Your task to perform on an android device: delete browsing data in the chrome app Image 0: 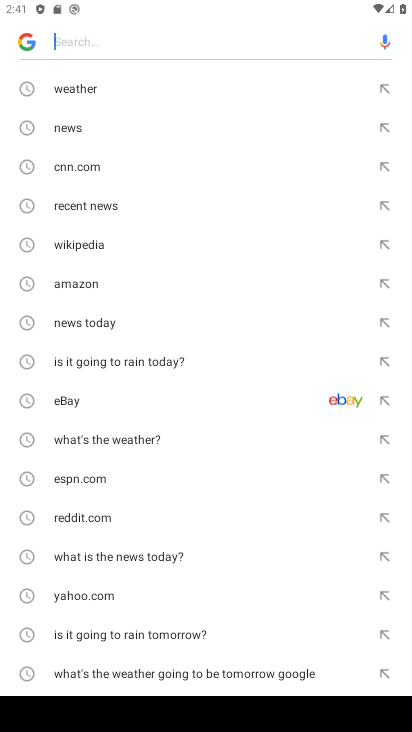
Step 0: press home button
Your task to perform on an android device: delete browsing data in the chrome app Image 1: 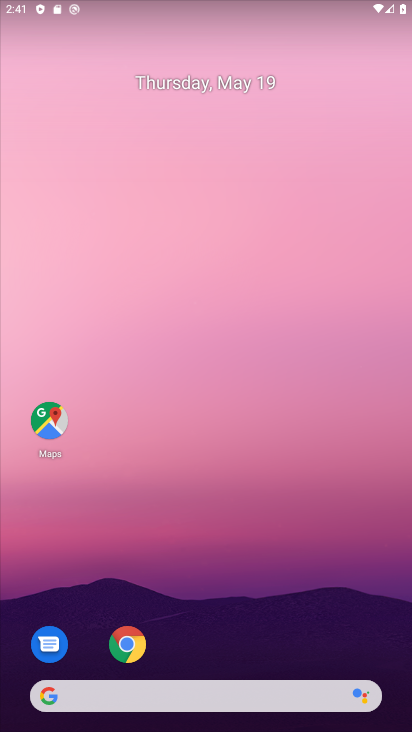
Step 1: drag from (277, 558) to (271, 261)
Your task to perform on an android device: delete browsing data in the chrome app Image 2: 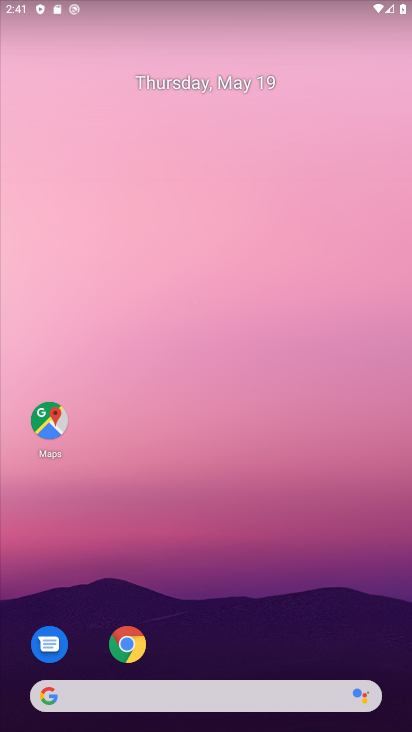
Step 2: click (124, 643)
Your task to perform on an android device: delete browsing data in the chrome app Image 3: 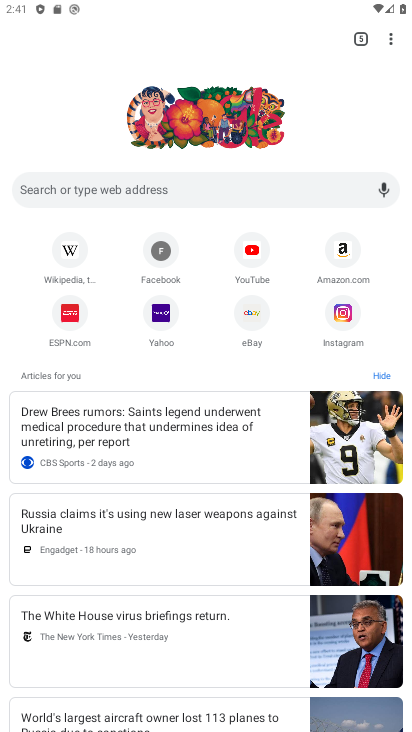
Step 3: click (386, 34)
Your task to perform on an android device: delete browsing data in the chrome app Image 4: 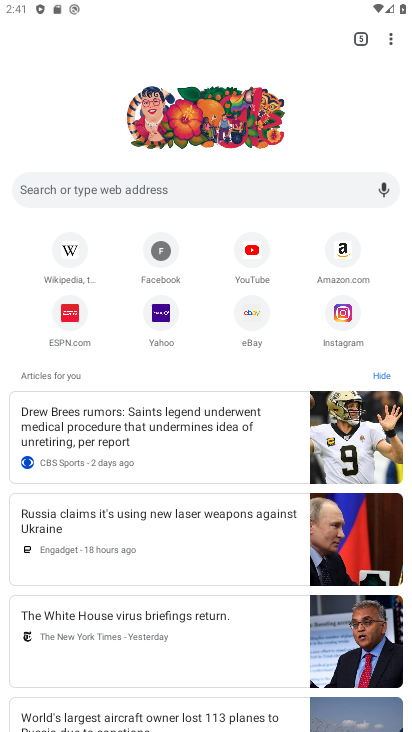
Step 4: click (394, 37)
Your task to perform on an android device: delete browsing data in the chrome app Image 5: 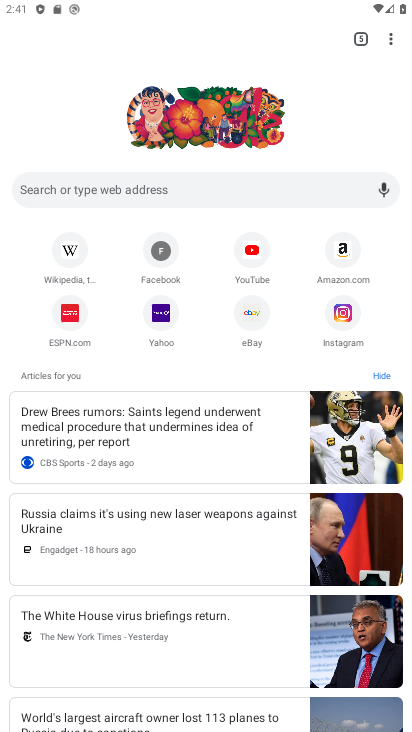
Step 5: click (394, 37)
Your task to perform on an android device: delete browsing data in the chrome app Image 6: 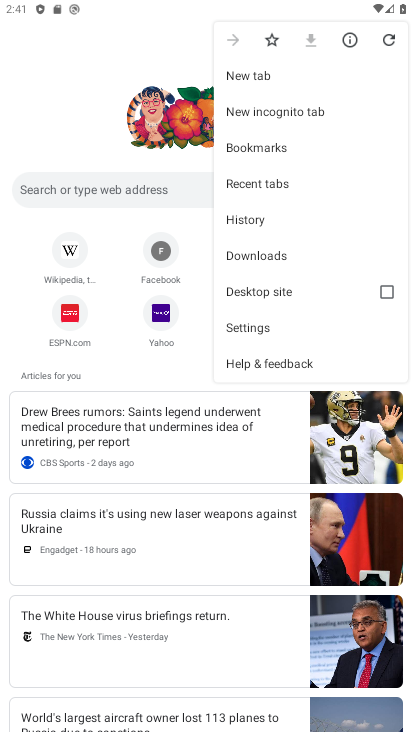
Step 6: click (261, 222)
Your task to perform on an android device: delete browsing data in the chrome app Image 7: 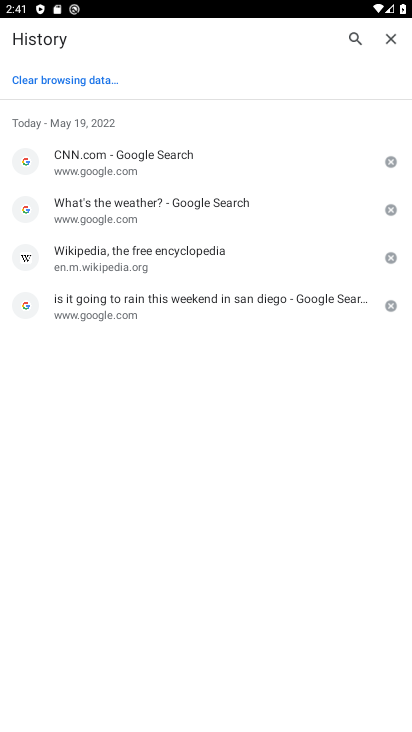
Step 7: click (71, 73)
Your task to perform on an android device: delete browsing data in the chrome app Image 8: 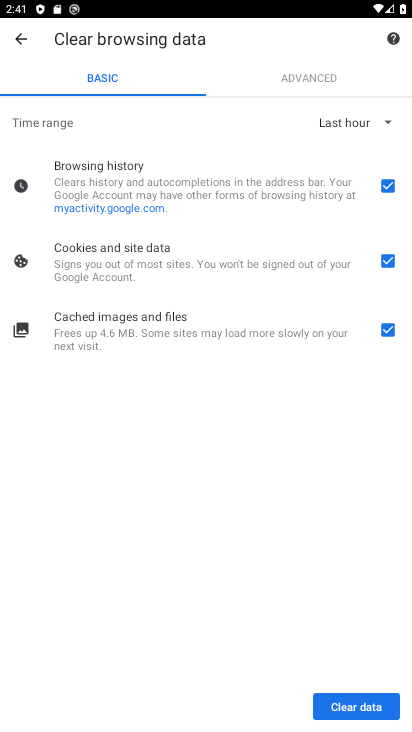
Step 8: click (367, 697)
Your task to perform on an android device: delete browsing data in the chrome app Image 9: 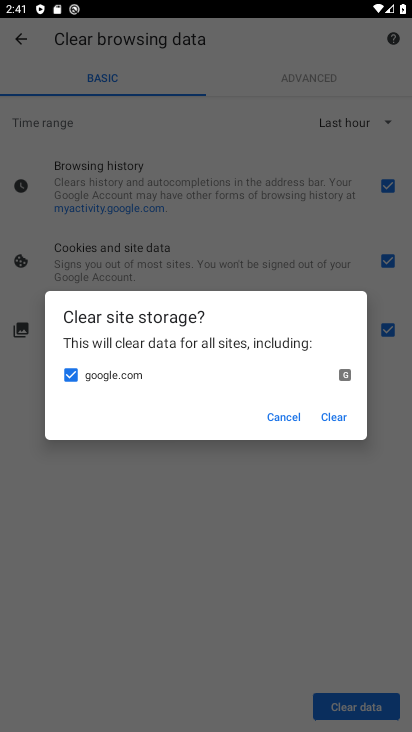
Step 9: click (321, 412)
Your task to perform on an android device: delete browsing data in the chrome app Image 10: 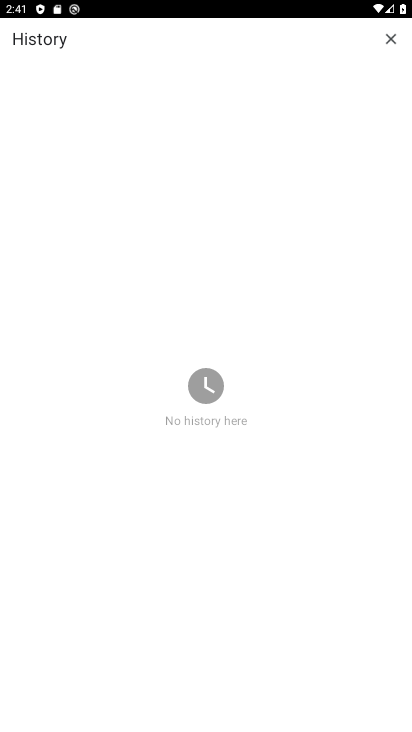
Step 10: task complete